Your task to perform on an android device: Open sound settings Image 0: 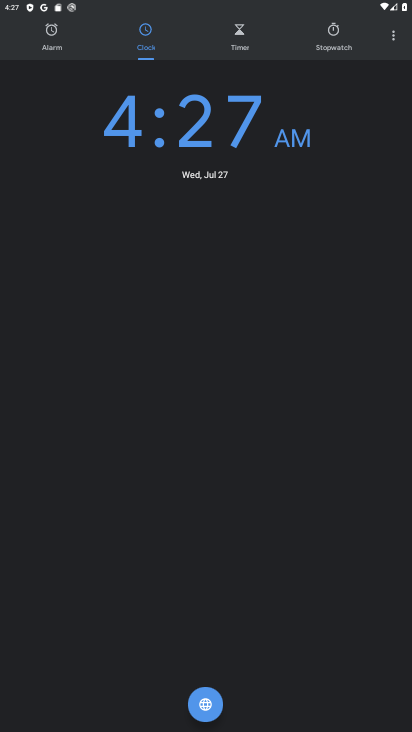
Step 0: press home button
Your task to perform on an android device: Open sound settings Image 1: 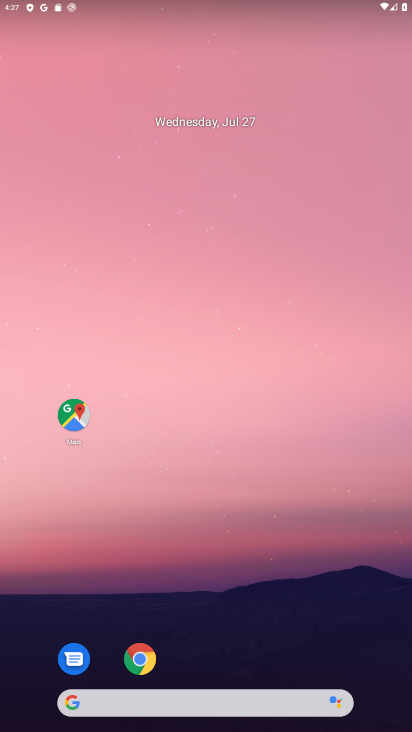
Step 1: drag from (227, 634) to (191, 151)
Your task to perform on an android device: Open sound settings Image 2: 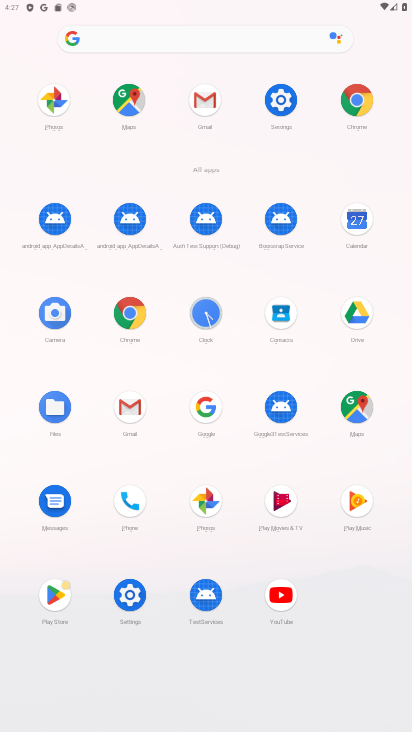
Step 2: click (287, 94)
Your task to perform on an android device: Open sound settings Image 3: 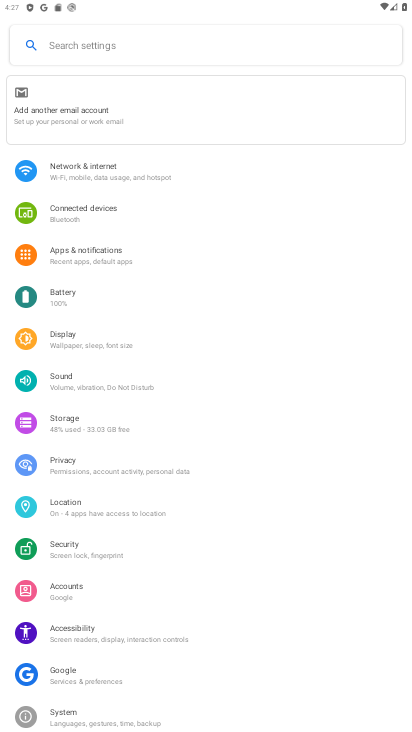
Step 3: click (53, 385)
Your task to perform on an android device: Open sound settings Image 4: 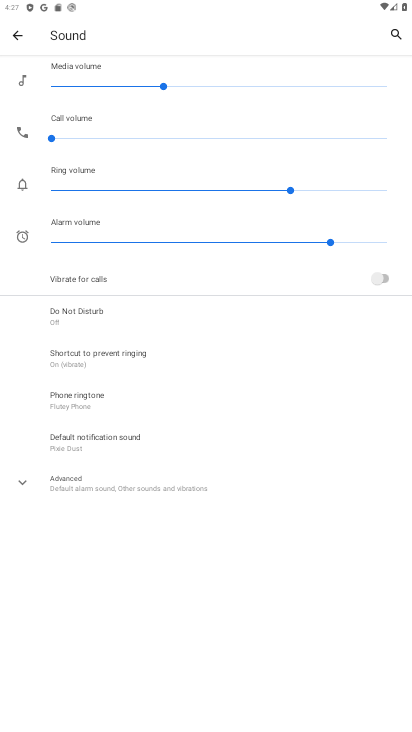
Step 4: task complete